Your task to perform on an android device: Go to settings Image 0: 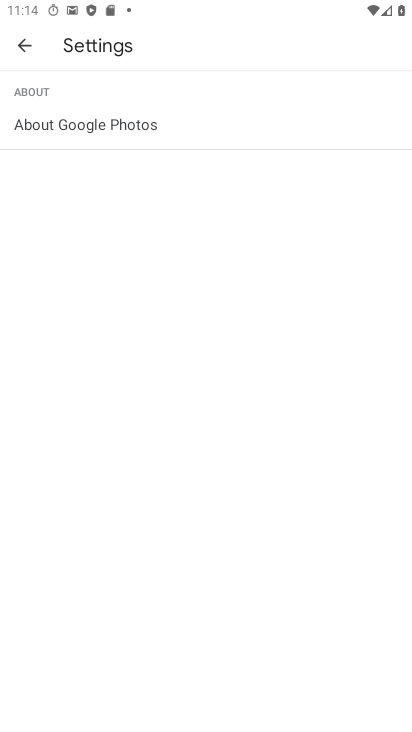
Step 0: press home button
Your task to perform on an android device: Go to settings Image 1: 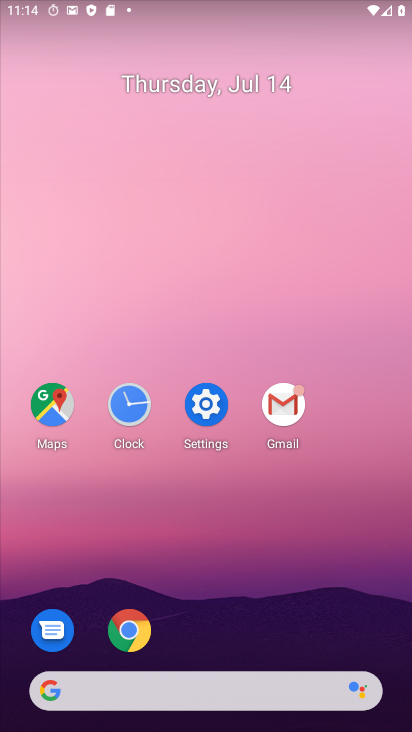
Step 1: click (210, 411)
Your task to perform on an android device: Go to settings Image 2: 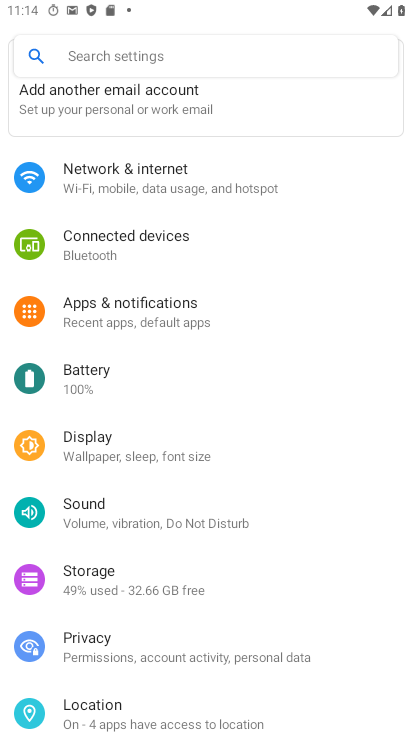
Step 2: task complete